Your task to perform on an android device: Open Wikipedia Image 0: 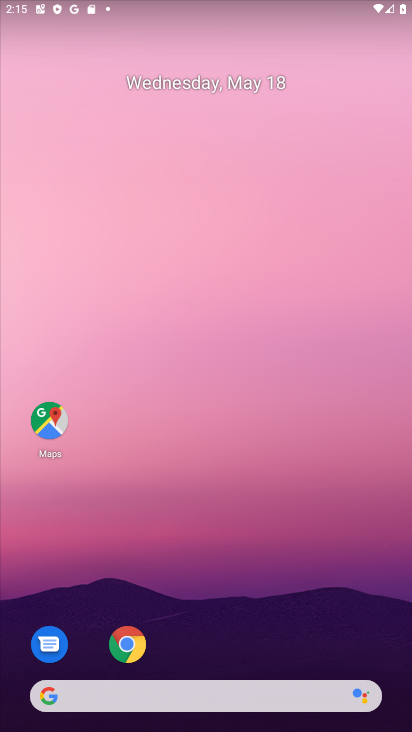
Step 0: click (125, 645)
Your task to perform on an android device: Open Wikipedia Image 1: 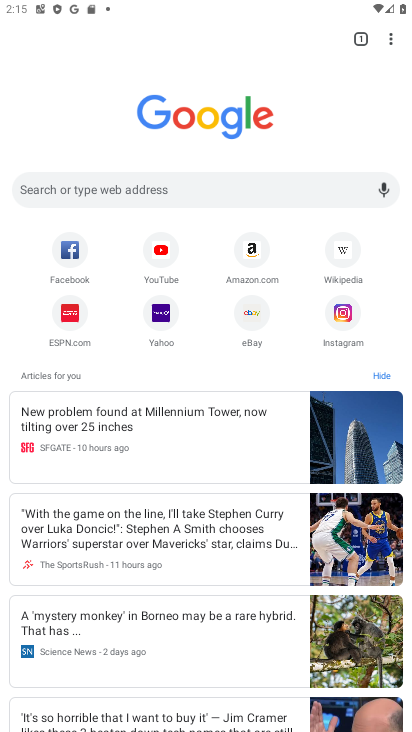
Step 1: click (158, 194)
Your task to perform on an android device: Open Wikipedia Image 2: 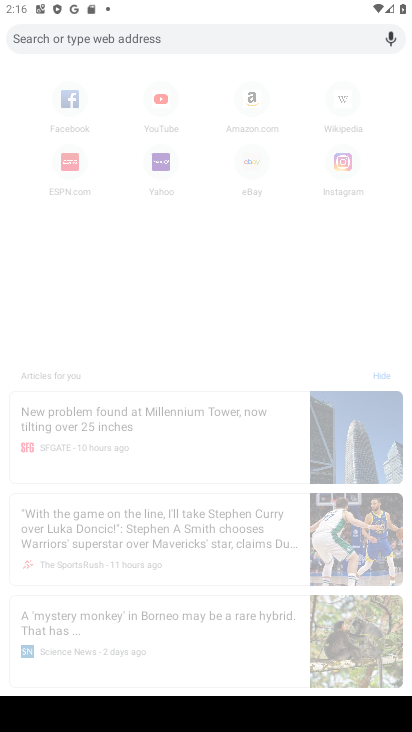
Step 2: type "Wikipedia"
Your task to perform on an android device: Open Wikipedia Image 3: 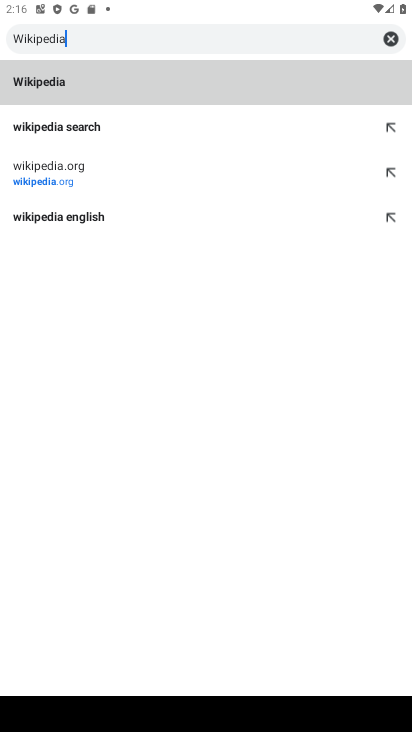
Step 3: click (110, 94)
Your task to perform on an android device: Open Wikipedia Image 4: 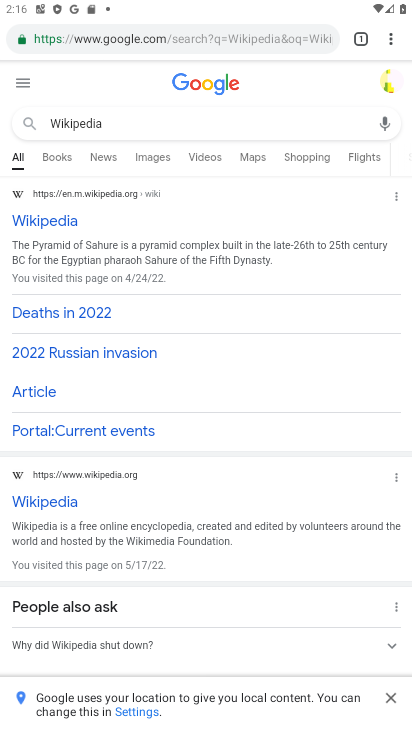
Step 4: click (64, 223)
Your task to perform on an android device: Open Wikipedia Image 5: 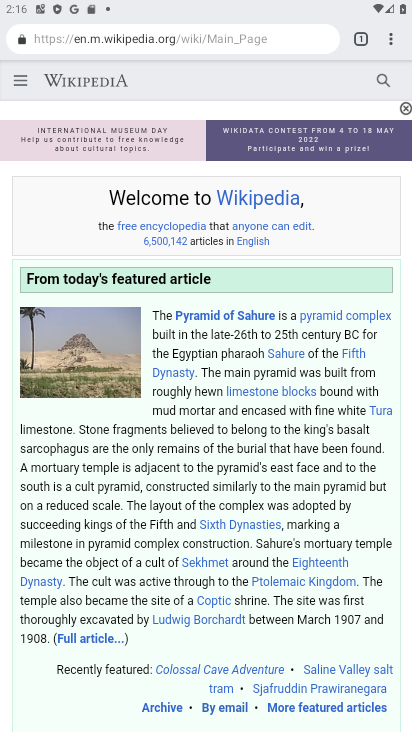
Step 5: task complete